Your task to perform on an android device: check out phone information Image 0: 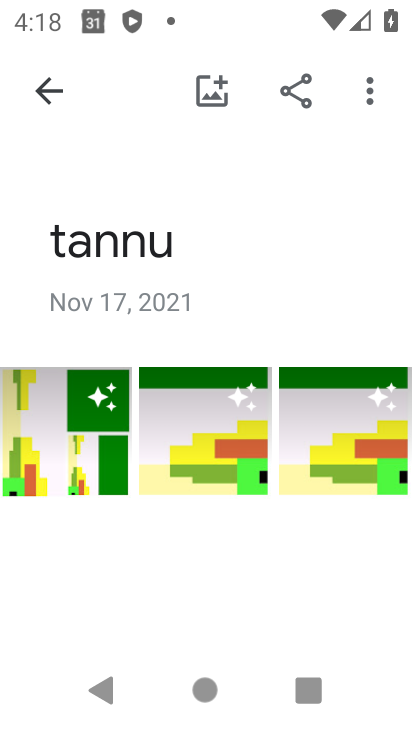
Step 0: press home button
Your task to perform on an android device: check out phone information Image 1: 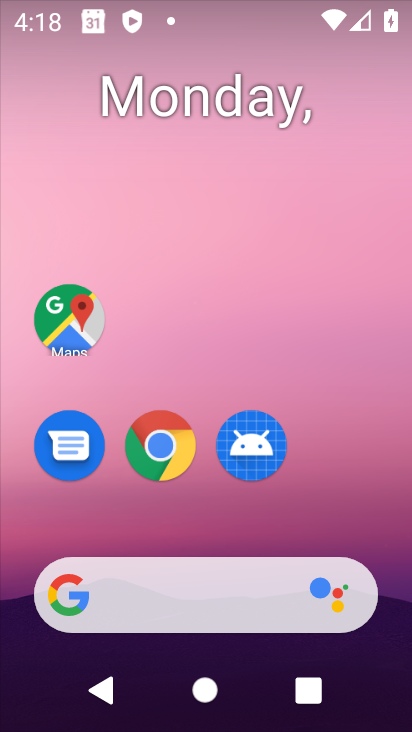
Step 1: drag from (318, 497) to (269, 149)
Your task to perform on an android device: check out phone information Image 2: 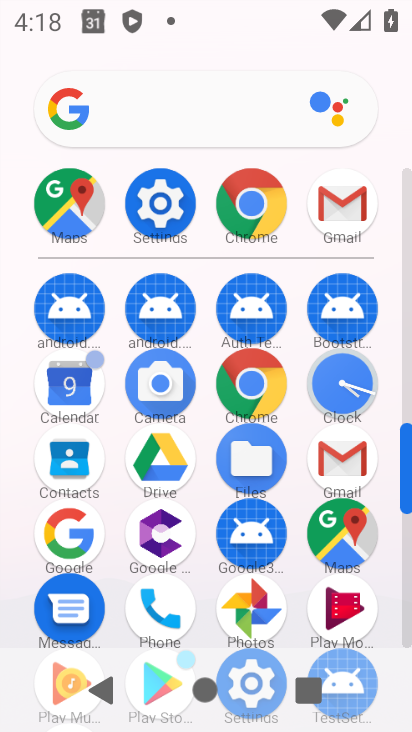
Step 2: drag from (405, 575) to (406, 636)
Your task to perform on an android device: check out phone information Image 3: 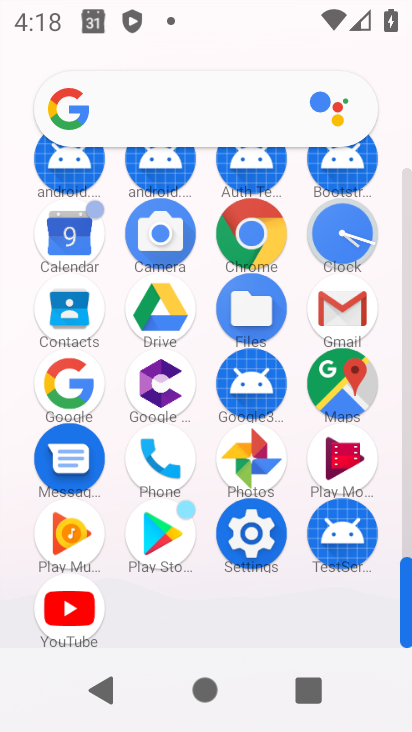
Step 3: click (145, 446)
Your task to perform on an android device: check out phone information Image 4: 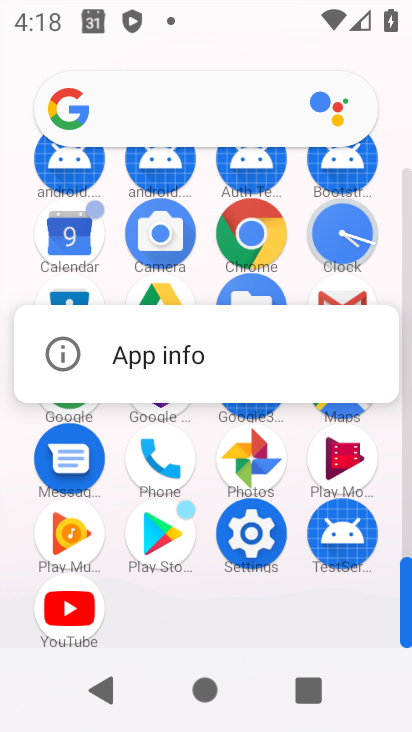
Step 4: click (145, 388)
Your task to perform on an android device: check out phone information Image 5: 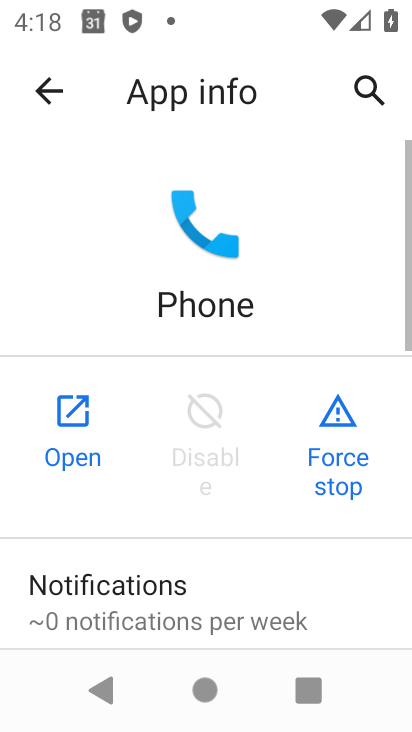
Step 5: task complete